Your task to perform on an android device: What's the weather today? Image 0: 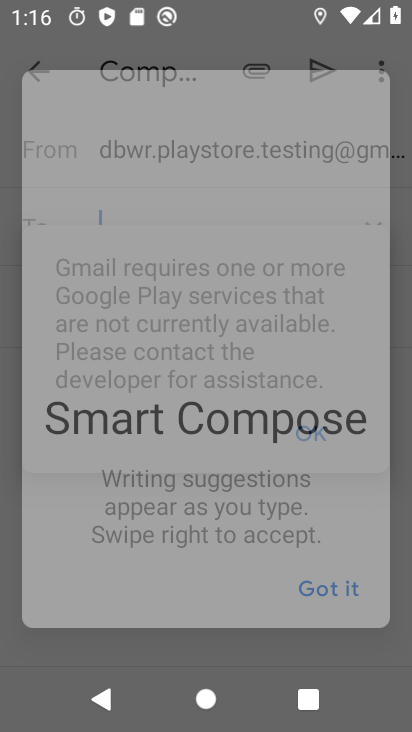
Step 0: press home button
Your task to perform on an android device: What's the weather today? Image 1: 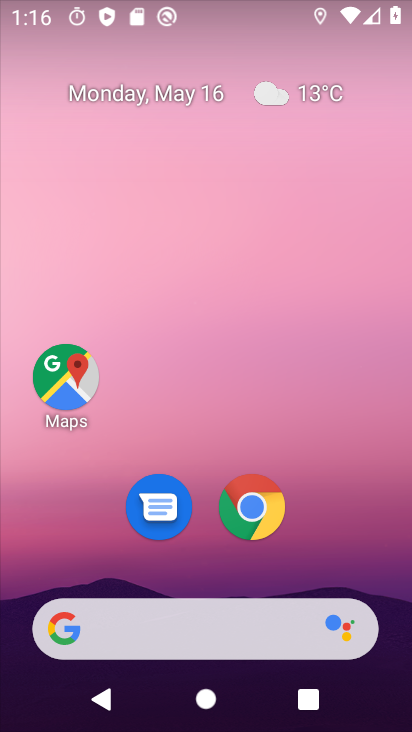
Step 1: drag from (203, 550) to (197, 145)
Your task to perform on an android device: What's the weather today? Image 2: 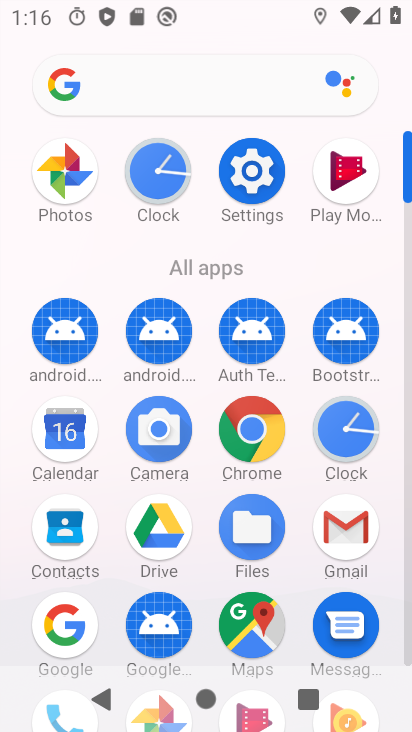
Step 2: click (67, 621)
Your task to perform on an android device: What's the weather today? Image 3: 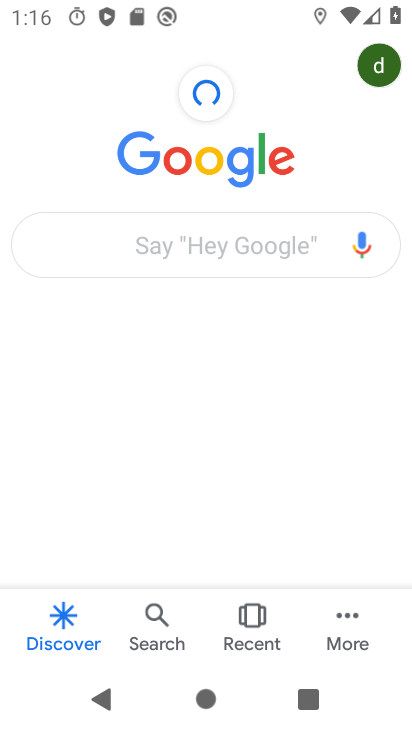
Step 3: click (206, 234)
Your task to perform on an android device: What's the weather today? Image 4: 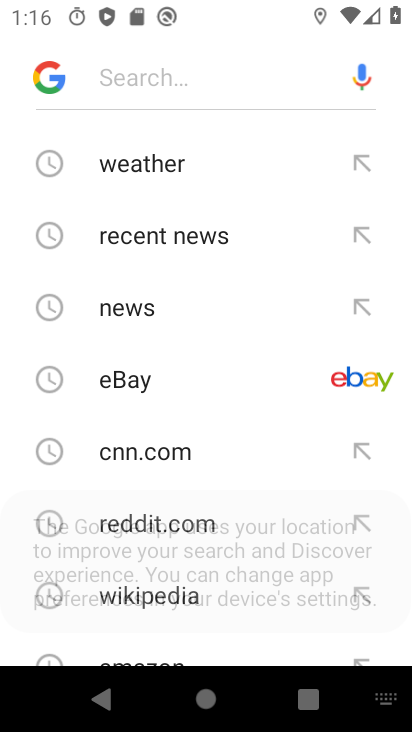
Step 4: click (158, 171)
Your task to perform on an android device: What's the weather today? Image 5: 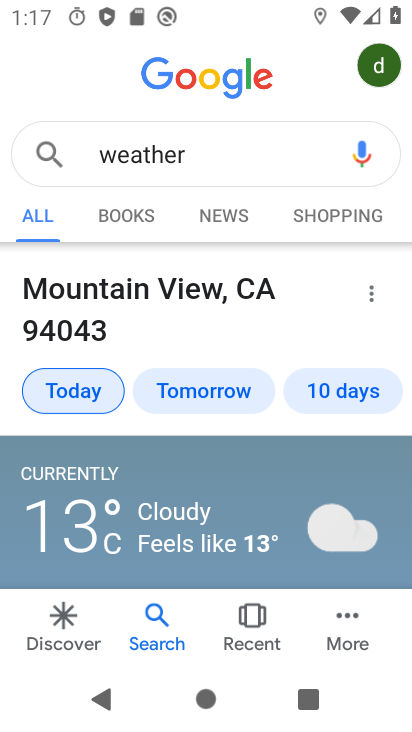
Step 5: task complete